Your task to perform on an android device: Search for the best selling book on Amazon. Image 0: 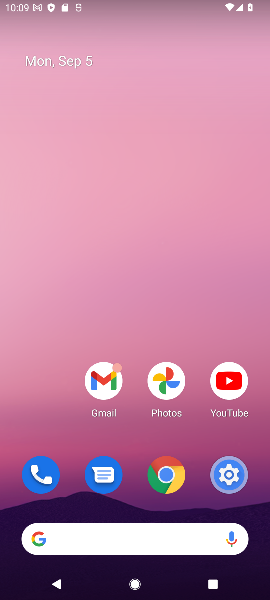
Step 0: click (129, 498)
Your task to perform on an android device: Search for the best selling book on Amazon. Image 1: 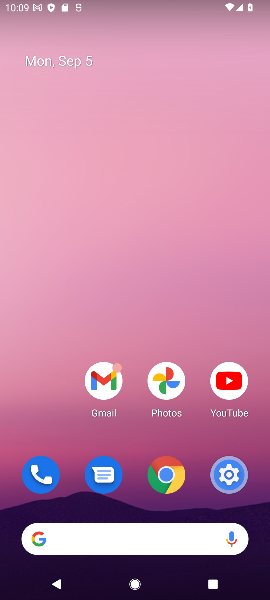
Step 1: click (120, 528)
Your task to perform on an android device: Search for the best selling book on Amazon. Image 2: 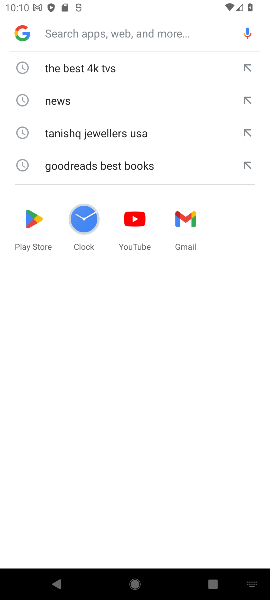
Step 2: type "the best selling book on Amazon"
Your task to perform on an android device: Search for the best selling book on Amazon. Image 3: 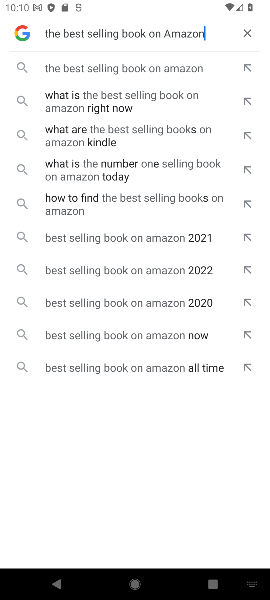
Step 3: click (111, 74)
Your task to perform on an android device: Search for the best selling book on Amazon. Image 4: 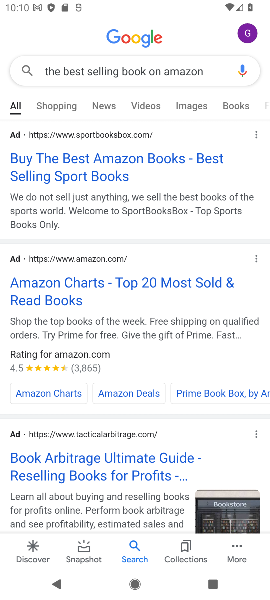
Step 4: task complete